Your task to perform on an android device: Is it going to rain tomorrow? Image 0: 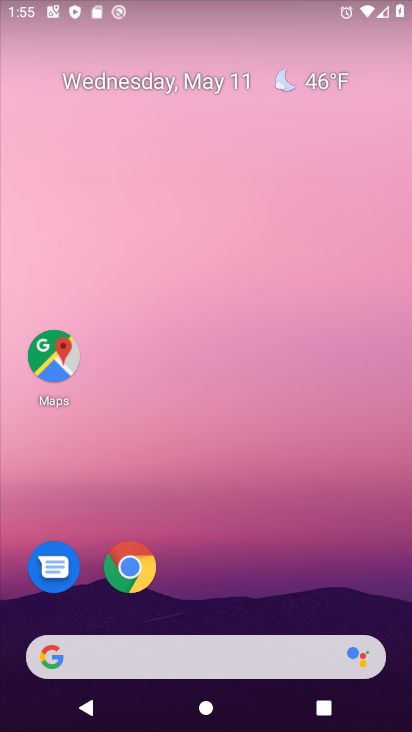
Step 0: click (127, 657)
Your task to perform on an android device: Is it going to rain tomorrow? Image 1: 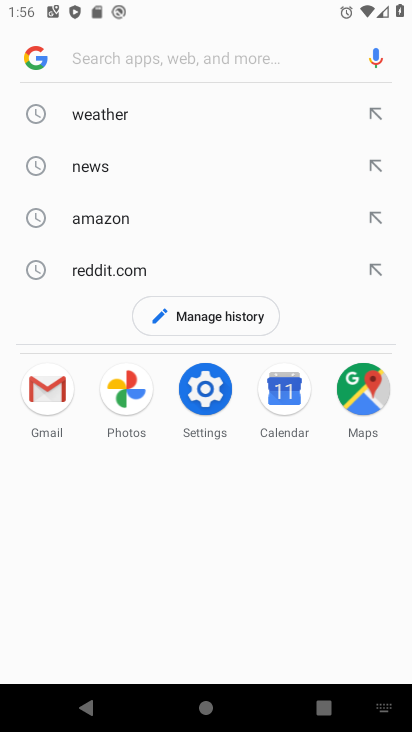
Step 1: click (129, 123)
Your task to perform on an android device: Is it going to rain tomorrow? Image 2: 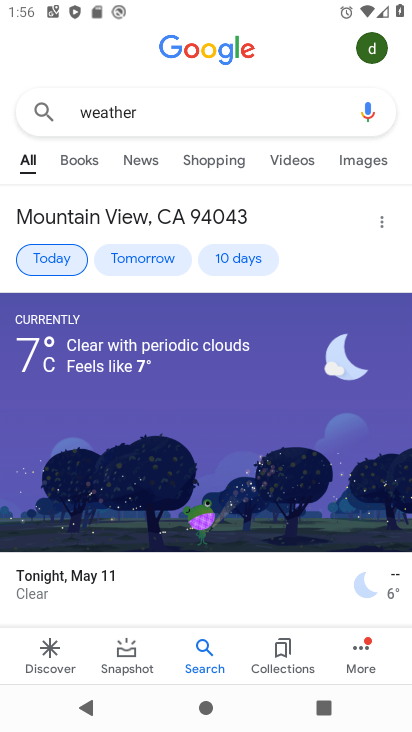
Step 2: click (128, 256)
Your task to perform on an android device: Is it going to rain tomorrow? Image 3: 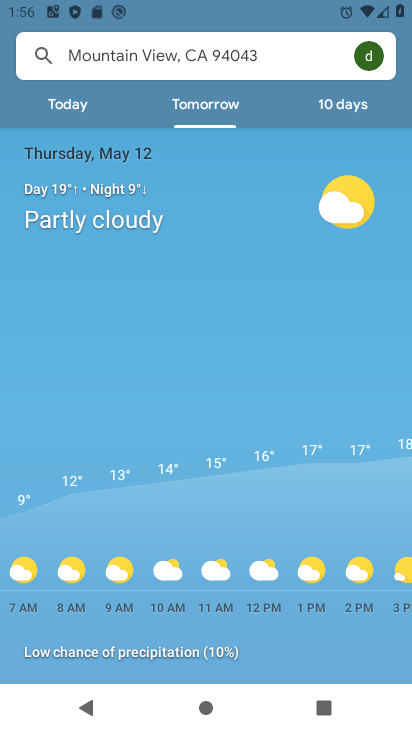
Step 3: task complete